Your task to perform on an android device: see tabs open on other devices in the chrome app Image 0: 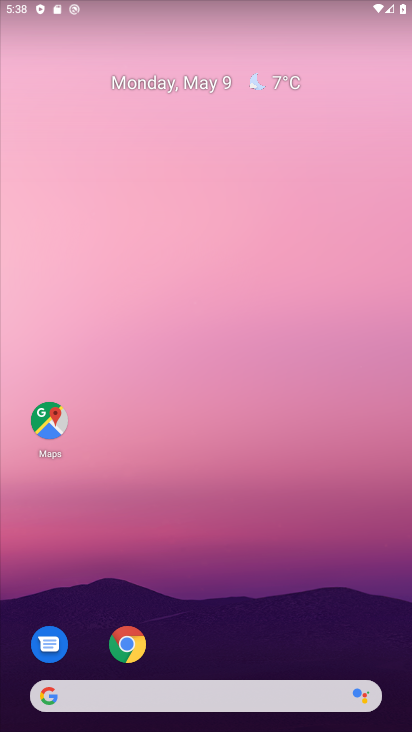
Step 0: click (126, 651)
Your task to perform on an android device: see tabs open on other devices in the chrome app Image 1: 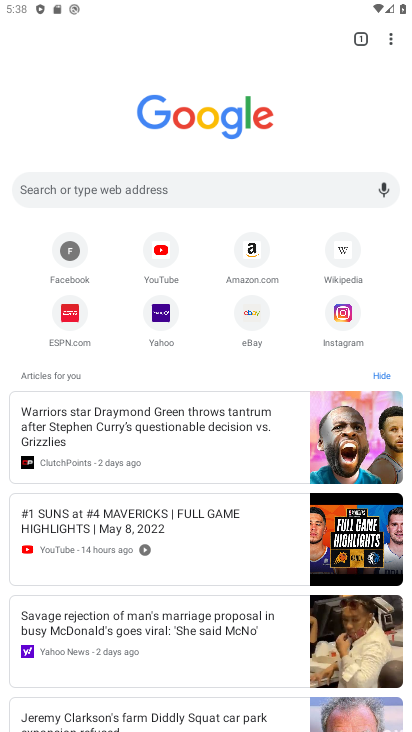
Step 1: click (393, 36)
Your task to perform on an android device: see tabs open on other devices in the chrome app Image 2: 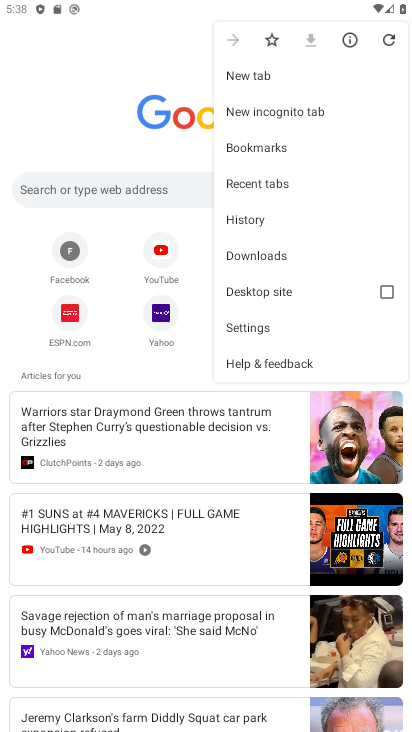
Step 2: click (276, 176)
Your task to perform on an android device: see tabs open on other devices in the chrome app Image 3: 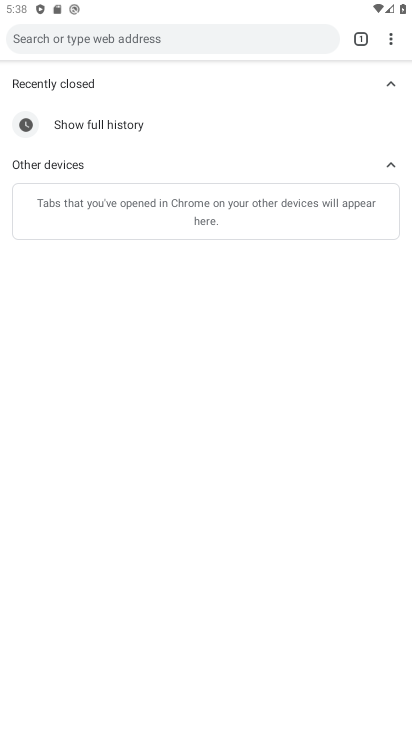
Step 3: click (244, 219)
Your task to perform on an android device: see tabs open on other devices in the chrome app Image 4: 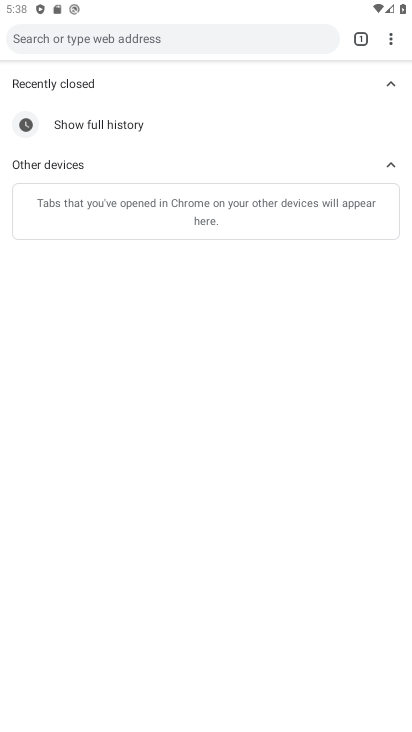
Step 4: task complete